Your task to perform on an android device: open app "PlayWell" Image 0: 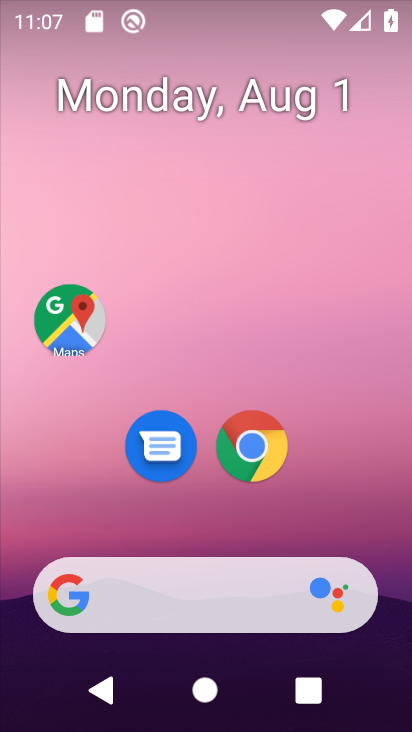
Step 0: drag from (209, 531) to (201, 90)
Your task to perform on an android device: open app "PlayWell" Image 1: 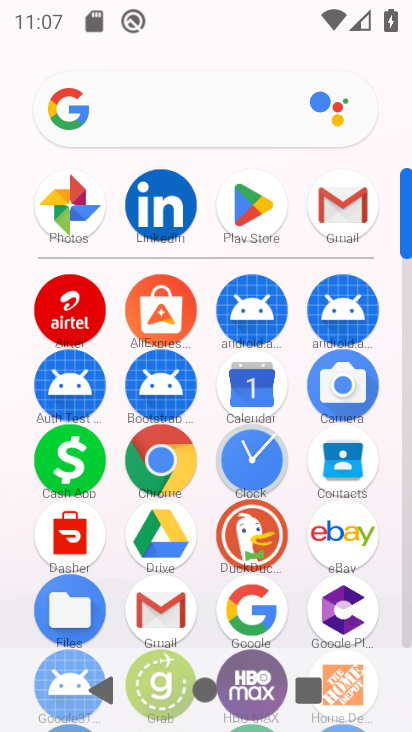
Step 1: click (237, 210)
Your task to perform on an android device: open app "PlayWell" Image 2: 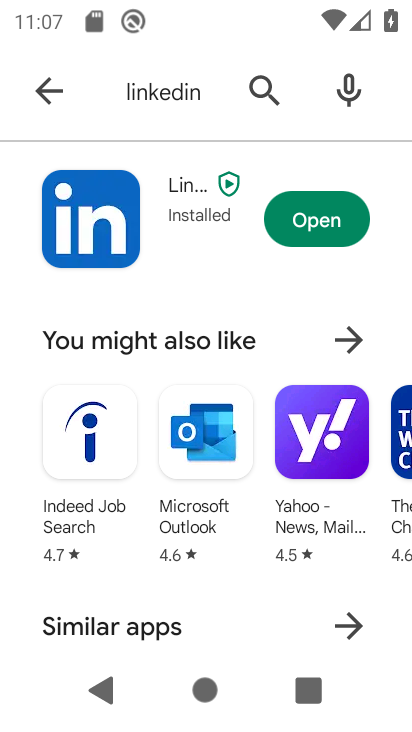
Step 2: click (263, 77)
Your task to perform on an android device: open app "PlayWell" Image 3: 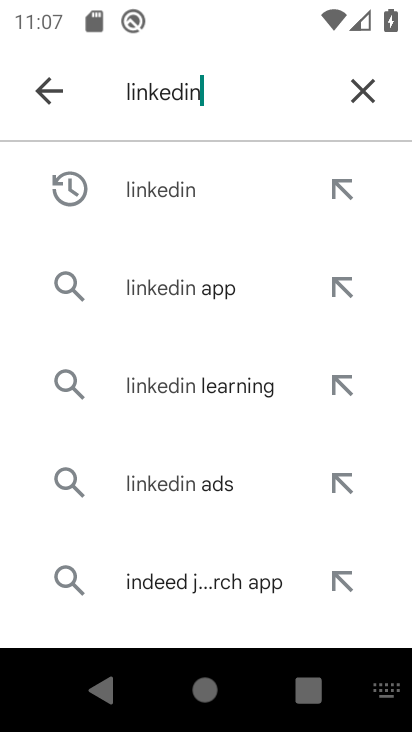
Step 3: click (368, 98)
Your task to perform on an android device: open app "PlayWell" Image 4: 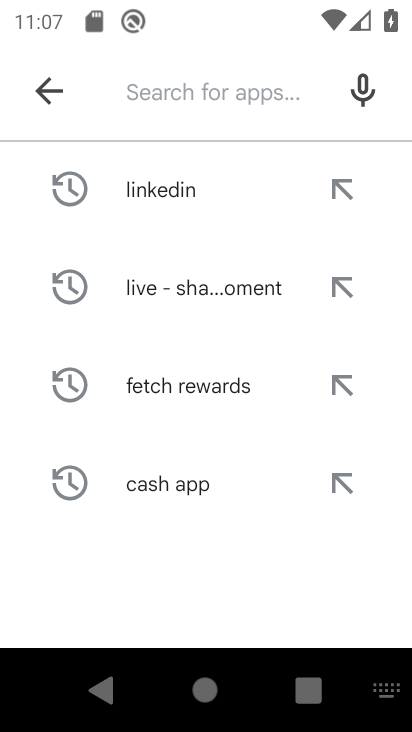
Step 4: type "PlayWell"
Your task to perform on an android device: open app "PlayWell" Image 5: 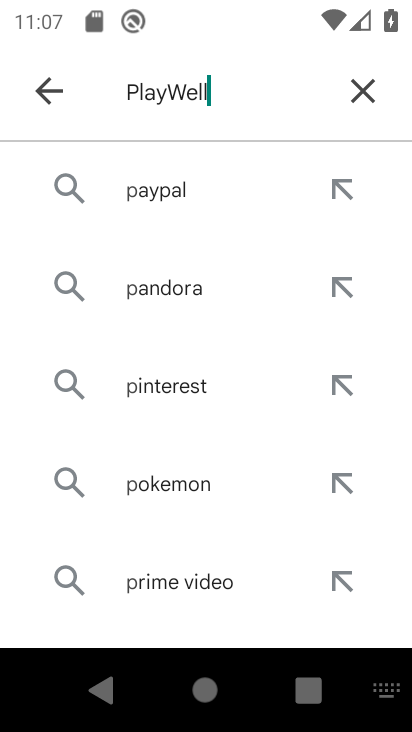
Step 5: type ""
Your task to perform on an android device: open app "PlayWell" Image 6: 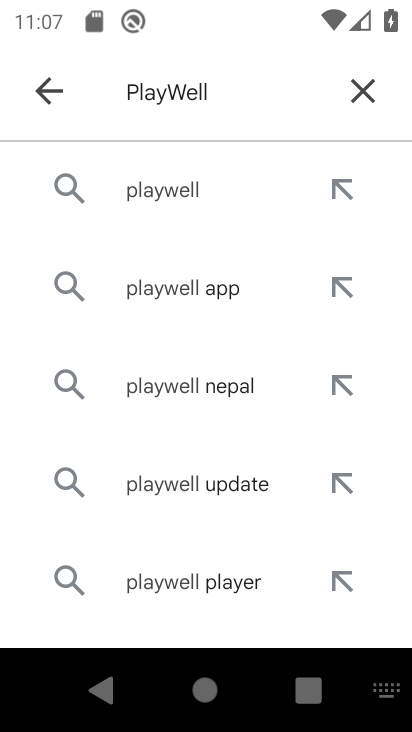
Step 6: click (138, 200)
Your task to perform on an android device: open app "PlayWell" Image 7: 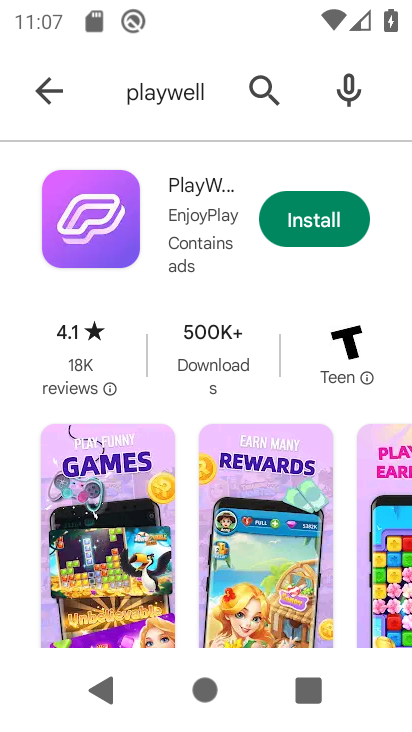
Step 7: task complete